Your task to perform on an android device: Open Chrome and go to settings Image 0: 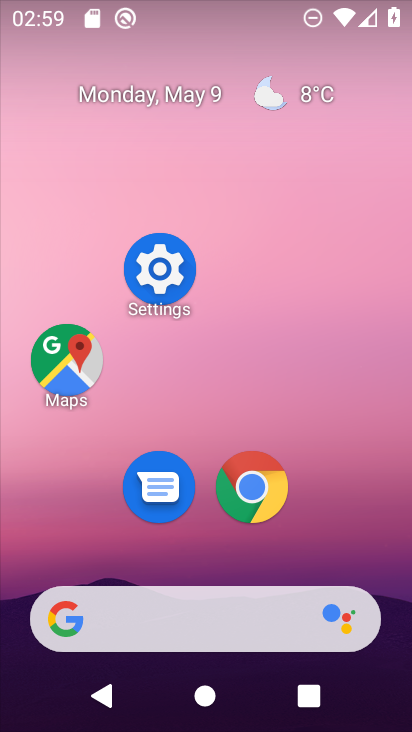
Step 0: click (265, 480)
Your task to perform on an android device: Open Chrome and go to settings Image 1: 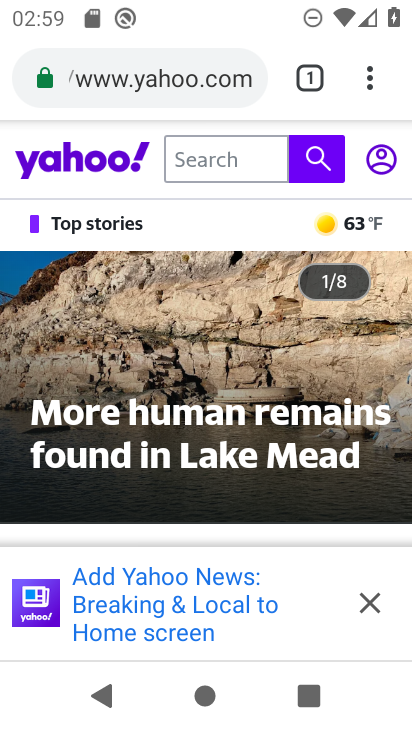
Step 1: click (373, 86)
Your task to perform on an android device: Open Chrome and go to settings Image 2: 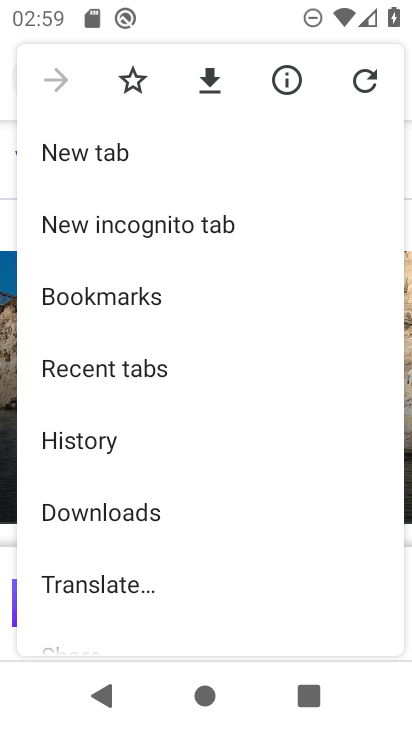
Step 2: drag from (192, 576) to (168, 265)
Your task to perform on an android device: Open Chrome and go to settings Image 3: 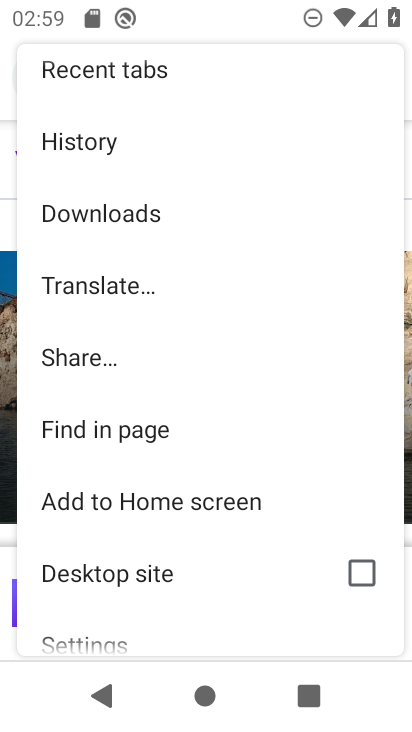
Step 3: click (95, 635)
Your task to perform on an android device: Open Chrome and go to settings Image 4: 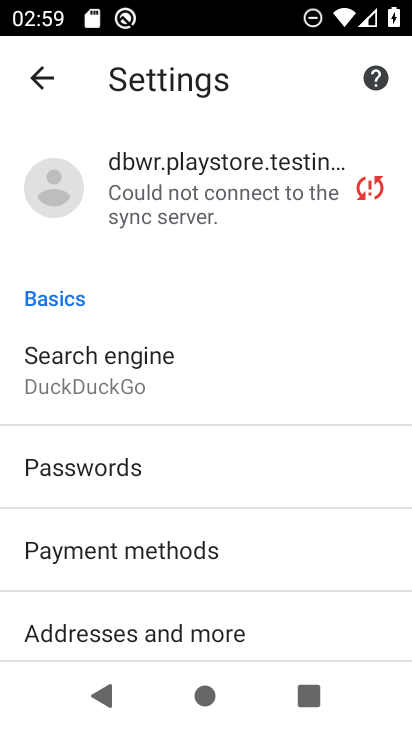
Step 4: task complete